Your task to perform on an android device: turn smart compose on in the gmail app Image 0: 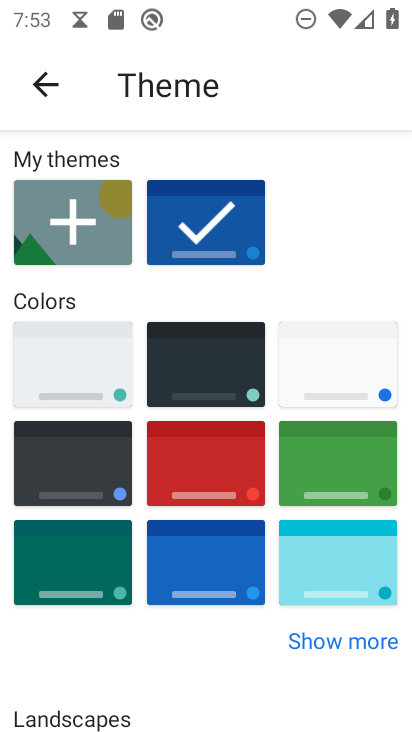
Step 0: press home button
Your task to perform on an android device: turn smart compose on in the gmail app Image 1: 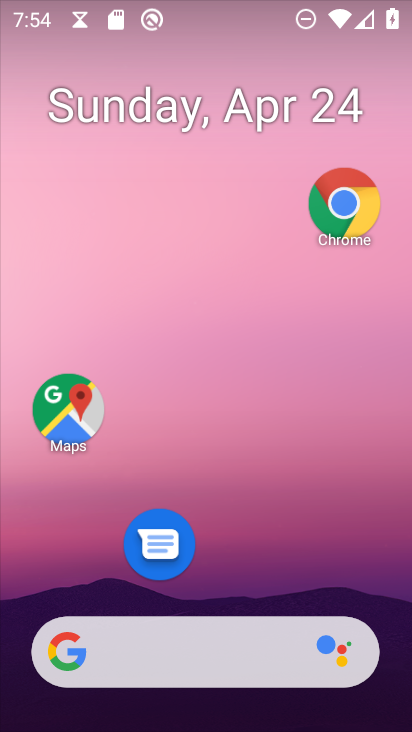
Step 1: drag from (172, 666) to (295, 138)
Your task to perform on an android device: turn smart compose on in the gmail app Image 2: 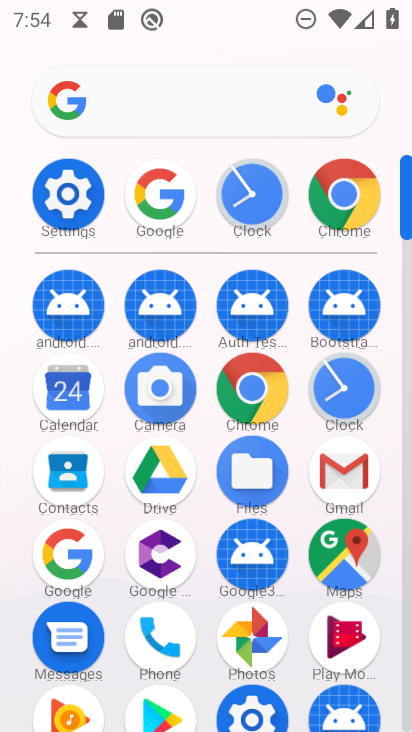
Step 2: click (350, 483)
Your task to perform on an android device: turn smart compose on in the gmail app Image 3: 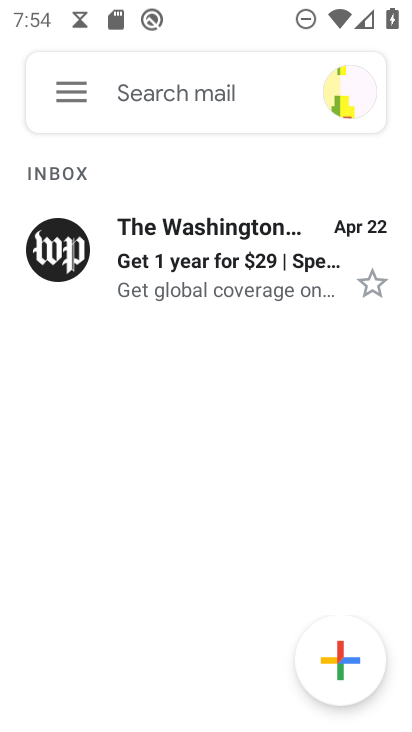
Step 3: click (66, 95)
Your task to perform on an android device: turn smart compose on in the gmail app Image 4: 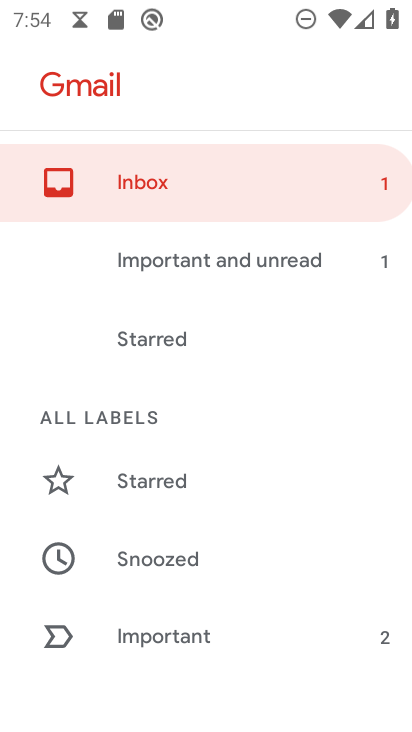
Step 4: drag from (224, 649) to (368, 132)
Your task to perform on an android device: turn smart compose on in the gmail app Image 5: 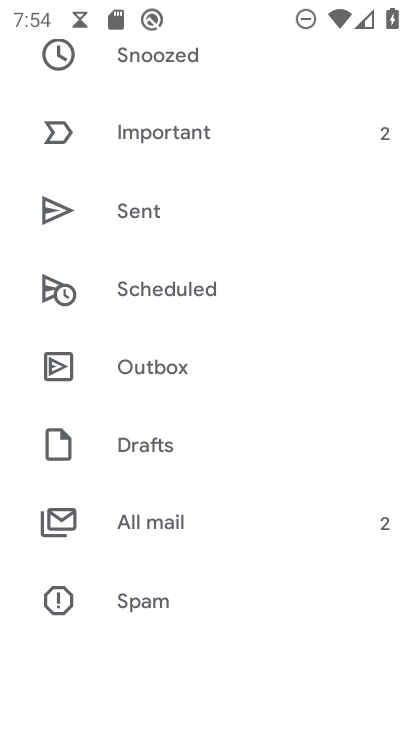
Step 5: drag from (231, 641) to (319, 89)
Your task to perform on an android device: turn smart compose on in the gmail app Image 6: 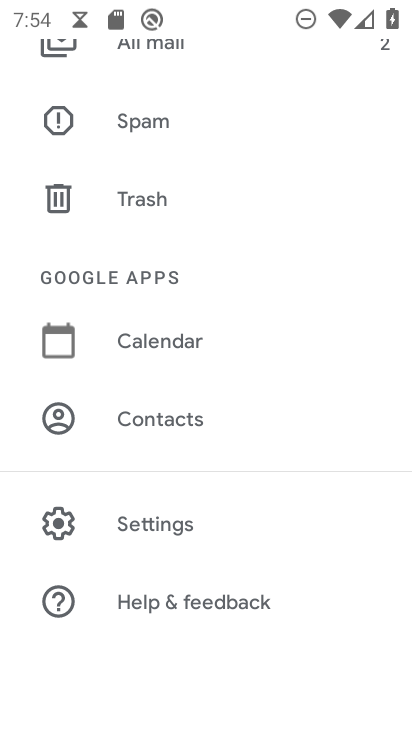
Step 6: click (139, 527)
Your task to perform on an android device: turn smart compose on in the gmail app Image 7: 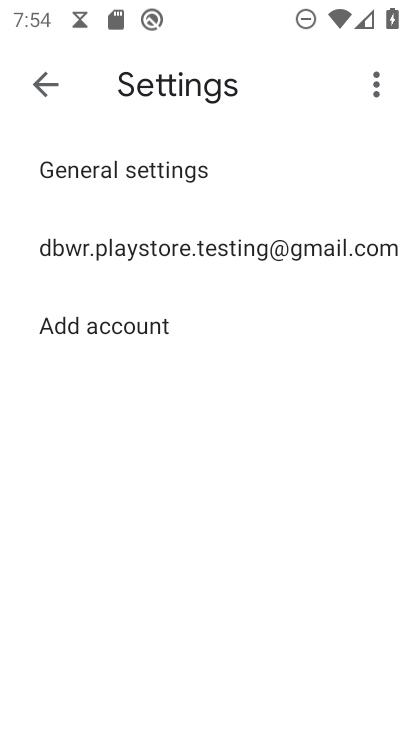
Step 7: click (252, 245)
Your task to perform on an android device: turn smart compose on in the gmail app Image 8: 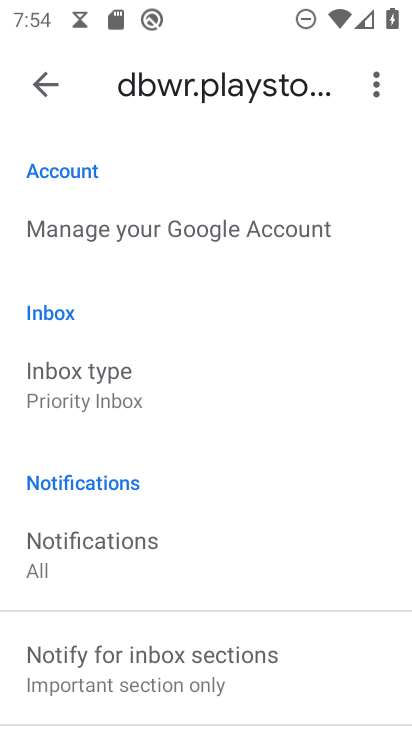
Step 8: task complete